Your task to perform on an android device: Show me popular games on the Play Store Image 0: 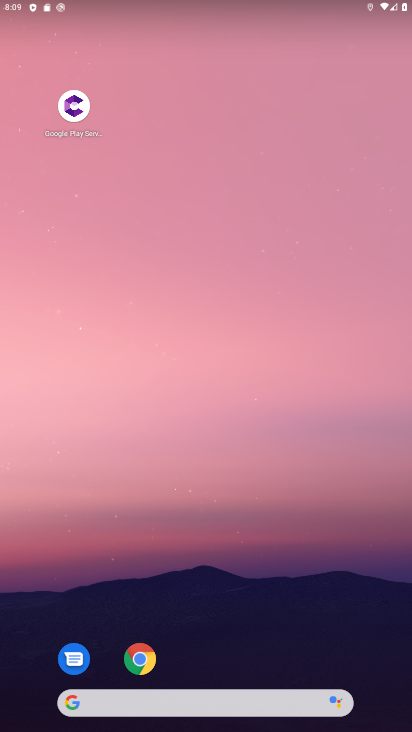
Step 0: drag from (370, 655) to (338, 328)
Your task to perform on an android device: Show me popular games on the Play Store Image 1: 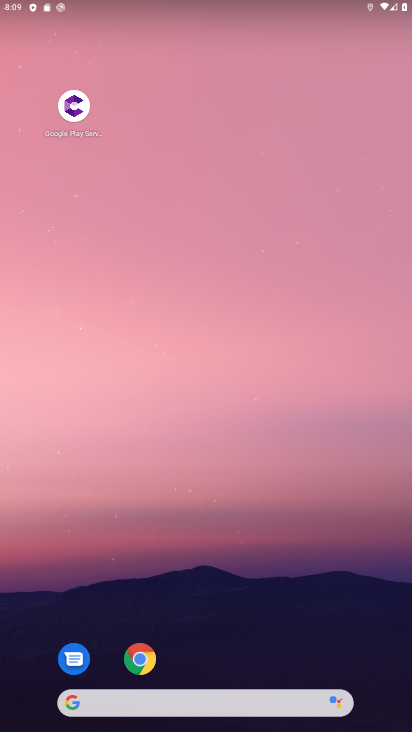
Step 1: drag from (366, 664) to (315, 74)
Your task to perform on an android device: Show me popular games on the Play Store Image 2: 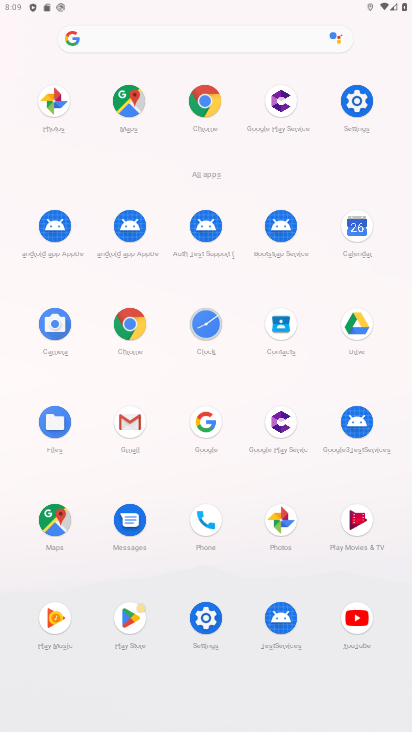
Step 2: click (131, 620)
Your task to perform on an android device: Show me popular games on the Play Store Image 3: 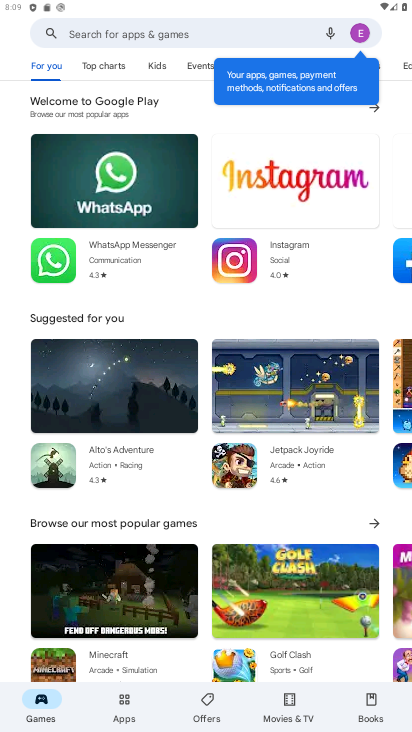
Step 3: click (375, 523)
Your task to perform on an android device: Show me popular games on the Play Store Image 4: 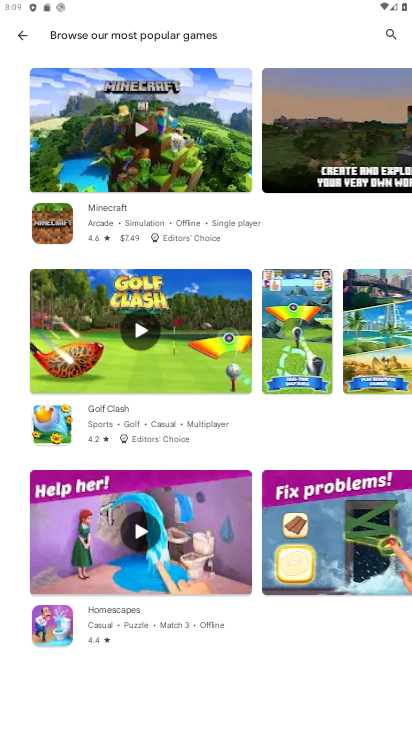
Step 4: task complete